Your task to perform on an android device: Go to display settings Image 0: 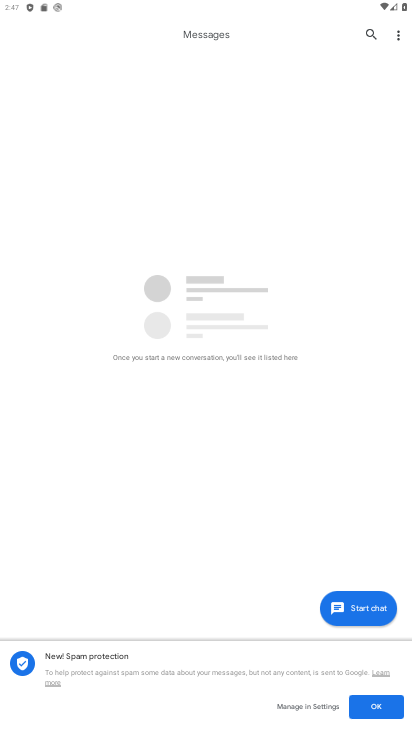
Step 0: press home button
Your task to perform on an android device: Go to display settings Image 1: 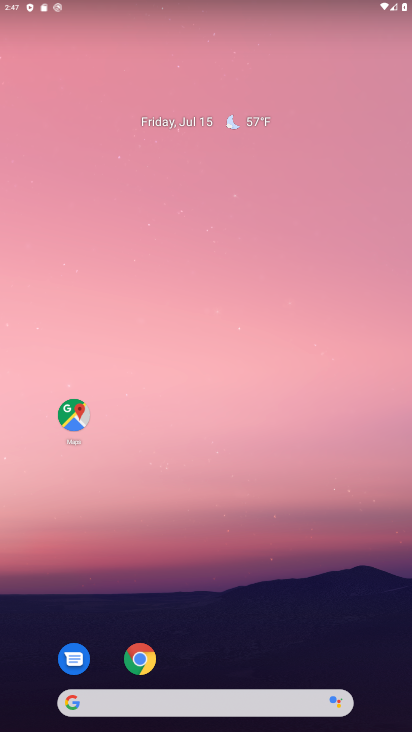
Step 1: drag from (230, 651) to (276, 0)
Your task to perform on an android device: Go to display settings Image 2: 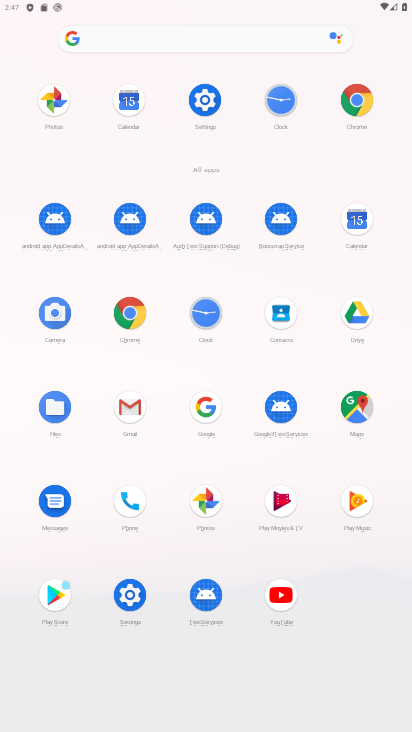
Step 2: click (132, 585)
Your task to perform on an android device: Go to display settings Image 3: 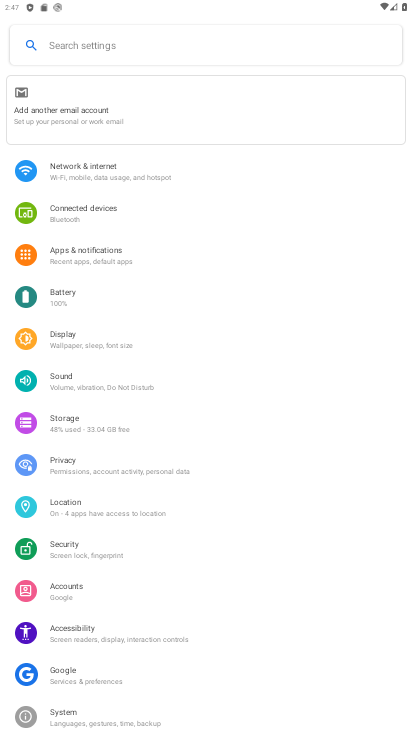
Step 3: click (71, 329)
Your task to perform on an android device: Go to display settings Image 4: 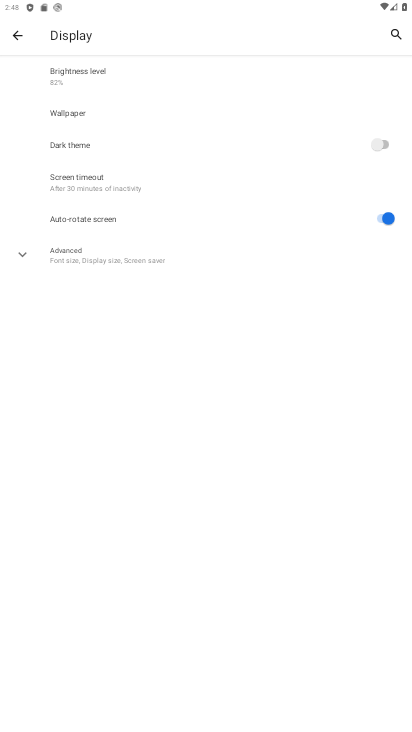
Step 4: task complete